Your task to perform on an android device: uninstall "Viber Messenger" Image 0: 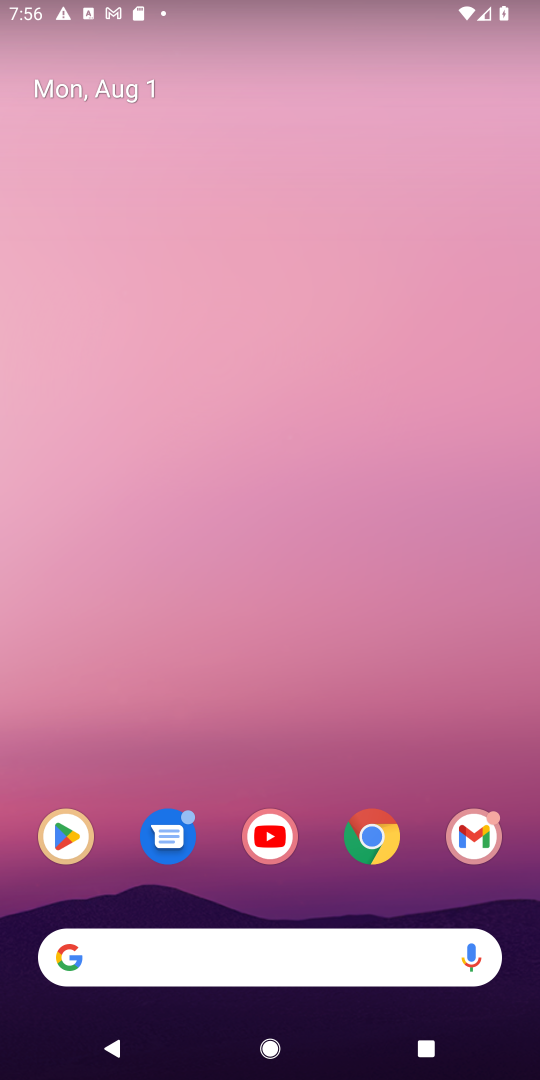
Step 0: press home button
Your task to perform on an android device: uninstall "Viber Messenger" Image 1: 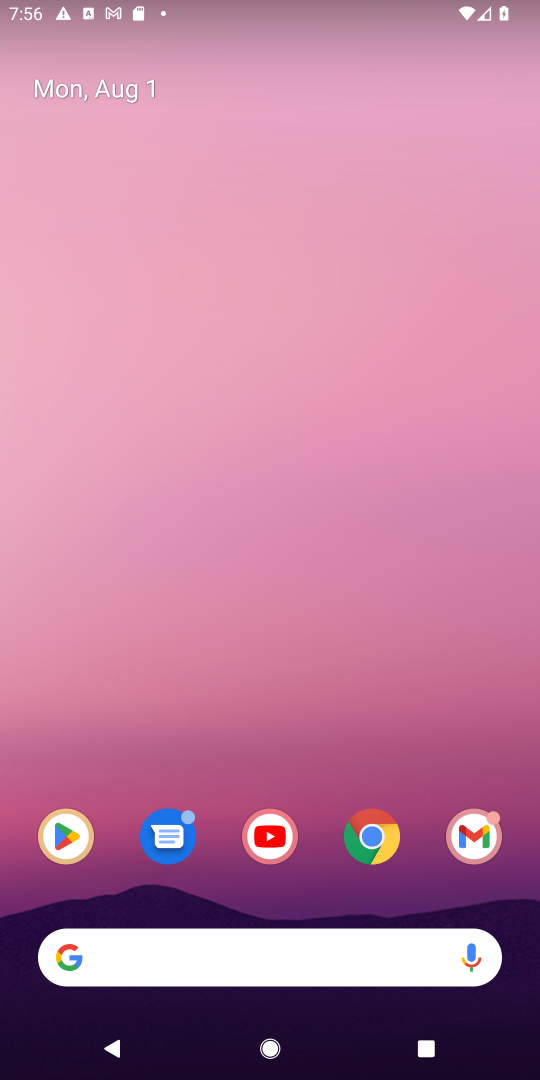
Step 1: click (60, 822)
Your task to perform on an android device: uninstall "Viber Messenger" Image 2: 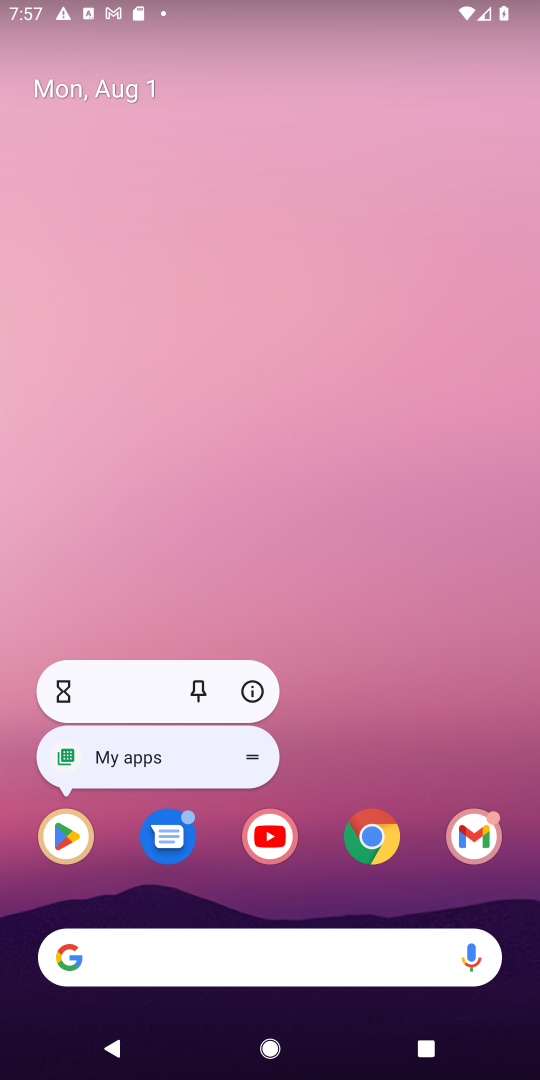
Step 2: click (57, 839)
Your task to perform on an android device: uninstall "Viber Messenger" Image 3: 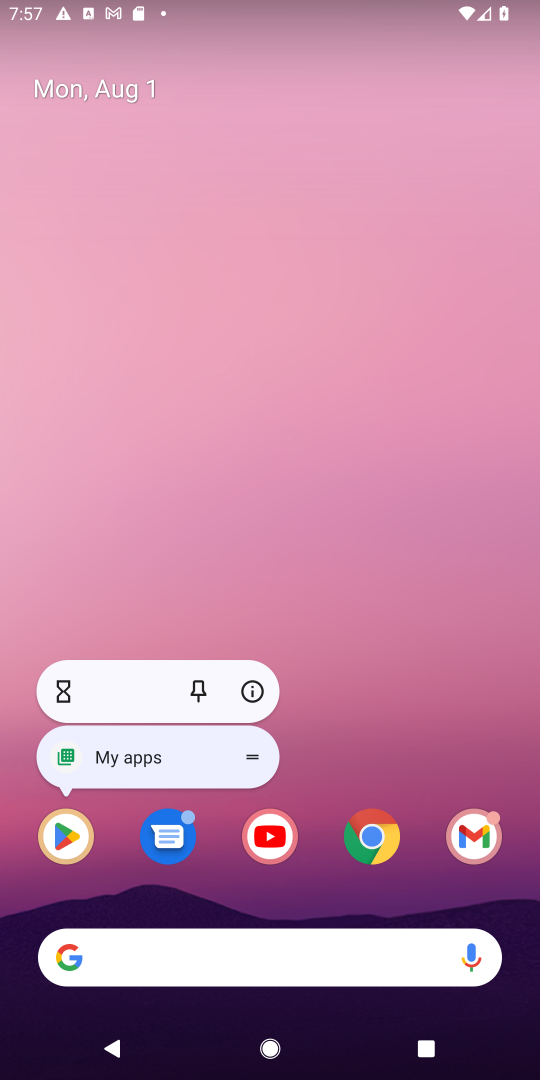
Step 3: click (57, 840)
Your task to perform on an android device: uninstall "Viber Messenger" Image 4: 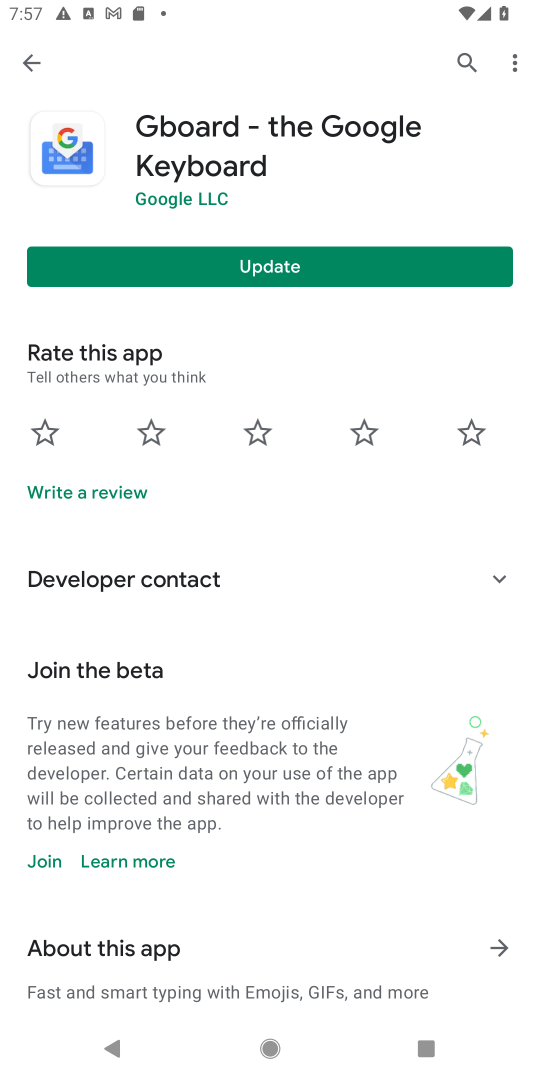
Step 4: click (469, 54)
Your task to perform on an android device: uninstall "Viber Messenger" Image 5: 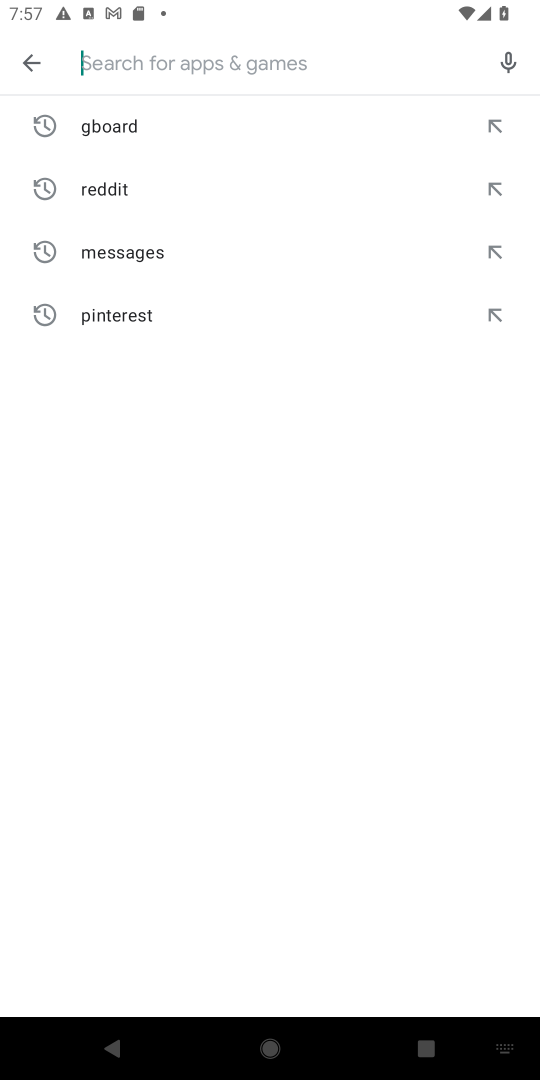
Step 5: type "Viber Messenger"
Your task to perform on an android device: uninstall "Viber Messenger" Image 6: 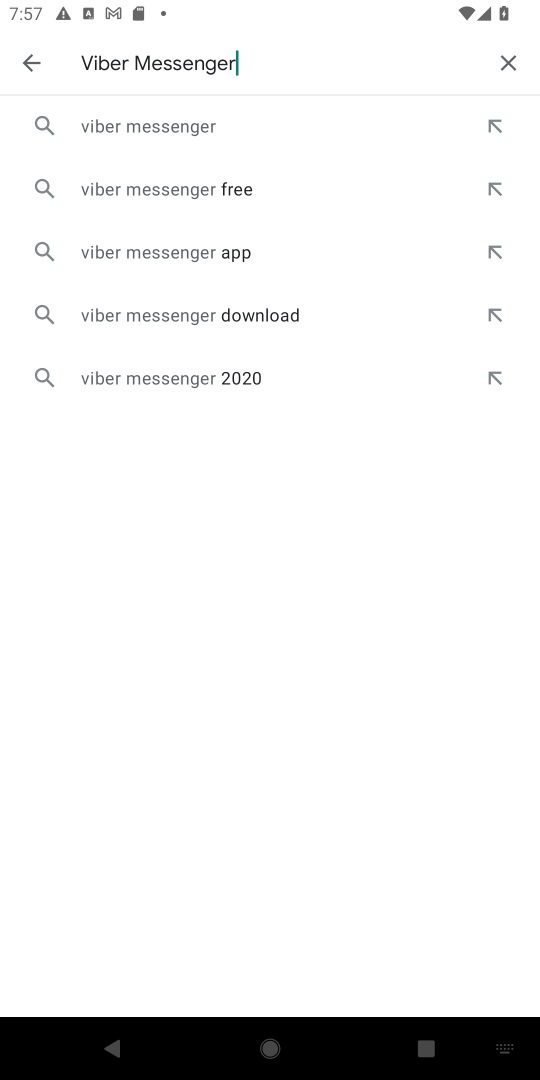
Step 6: click (136, 129)
Your task to perform on an android device: uninstall "Viber Messenger" Image 7: 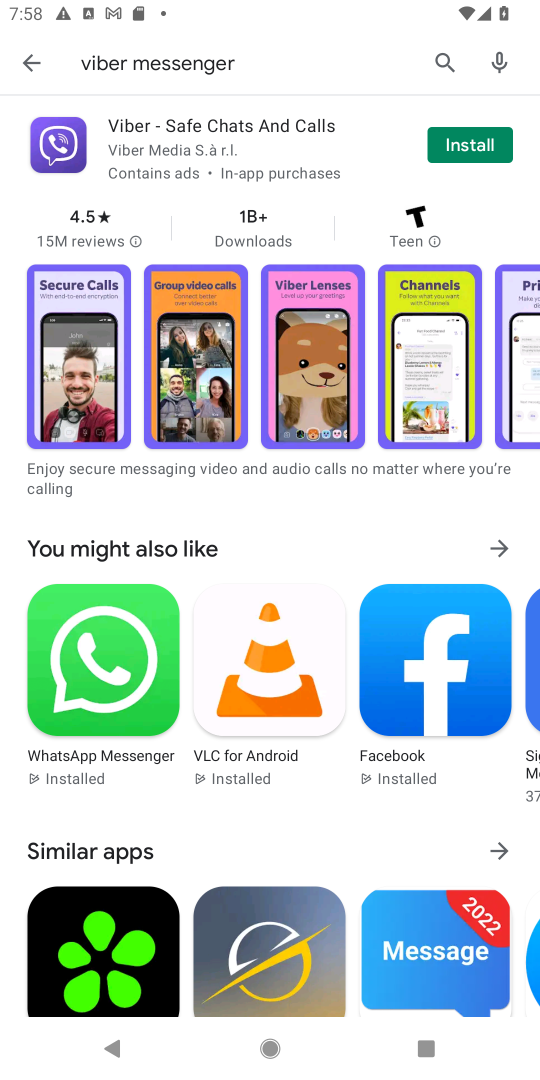
Step 7: task complete